Your task to perform on an android device: change timer sound Image 0: 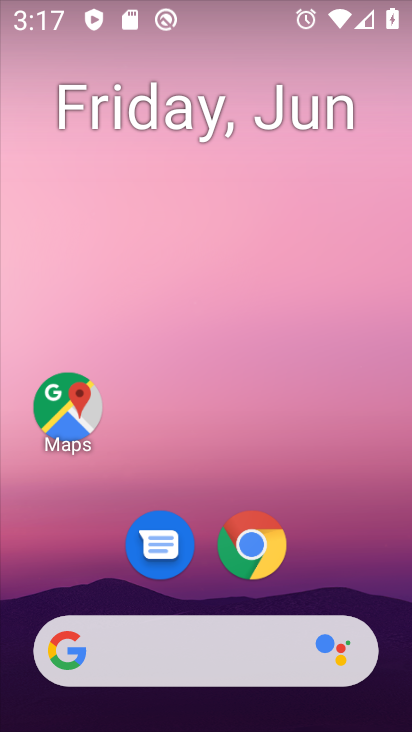
Step 0: drag from (313, 484) to (312, 2)
Your task to perform on an android device: change timer sound Image 1: 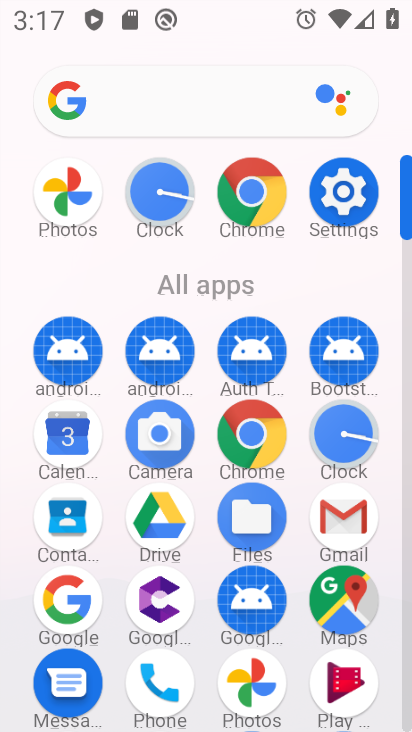
Step 1: click (341, 452)
Your task to perform on an android device: change timer sound Image 2: 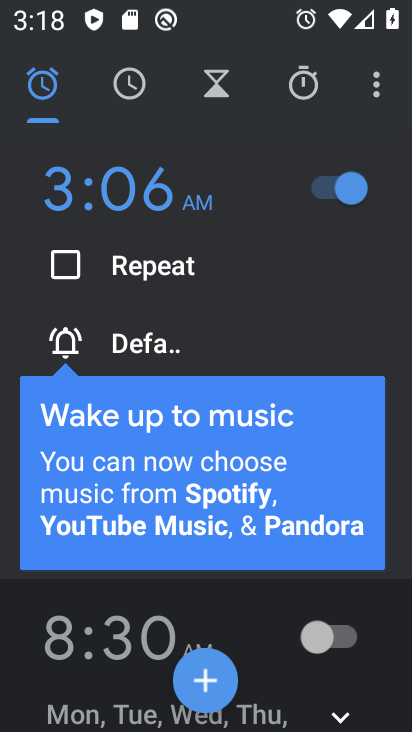
Step 2: click (364, 84)
Your task to perform on an android device: change timer sound Image 3: 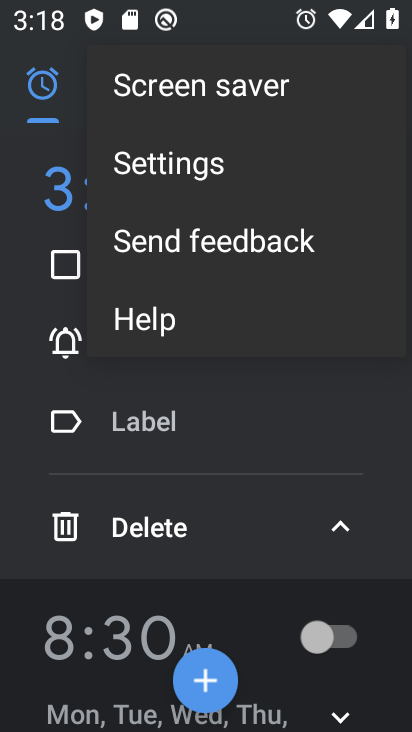
Step 3: click (168, 165)
Your task to perform on an android device: change timer sound Image 4: 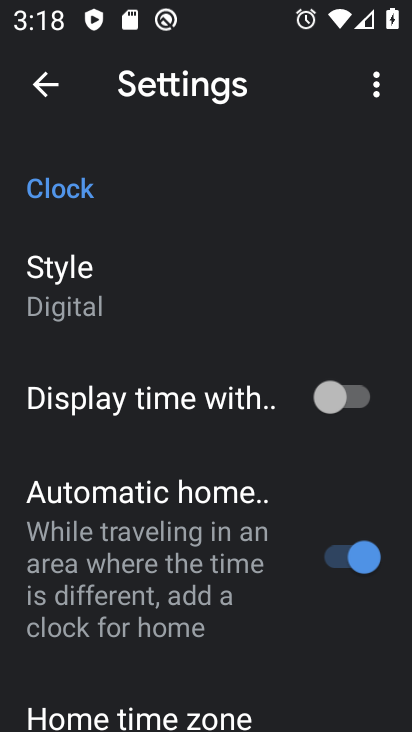
Step 4: drag from (181, 648) to (198, 275)
Your task to perform on an android device: change timer sound Image 5: 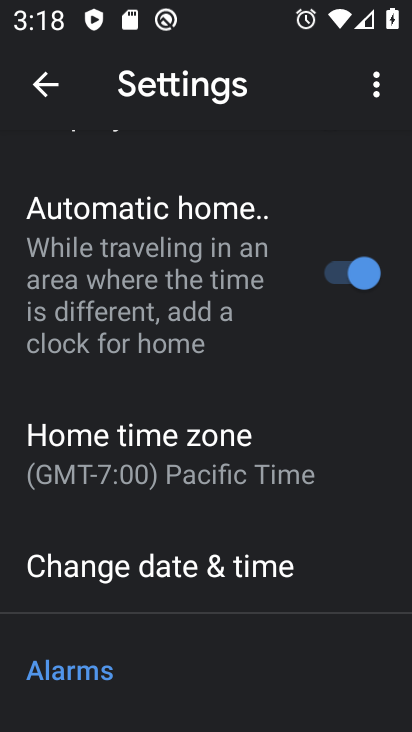
Step 5: drag from (149, 643) to (180, 165)
Your task to perform on an android device: change timer sound Image 6: 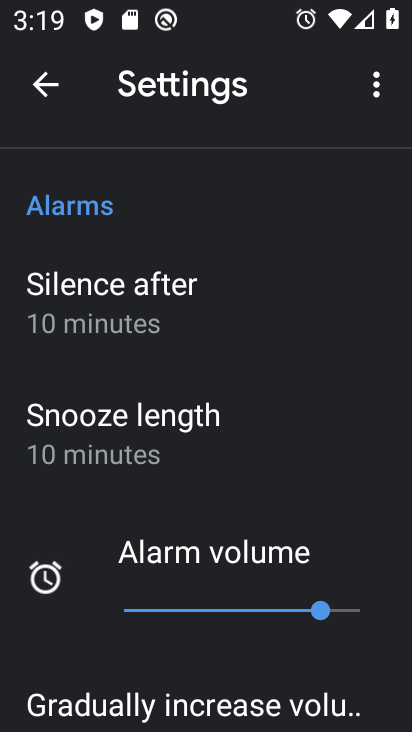
Step 6: drag from (207, 689) to (312, 199)
Your task to perform on an android device: change timer sound Image 7: 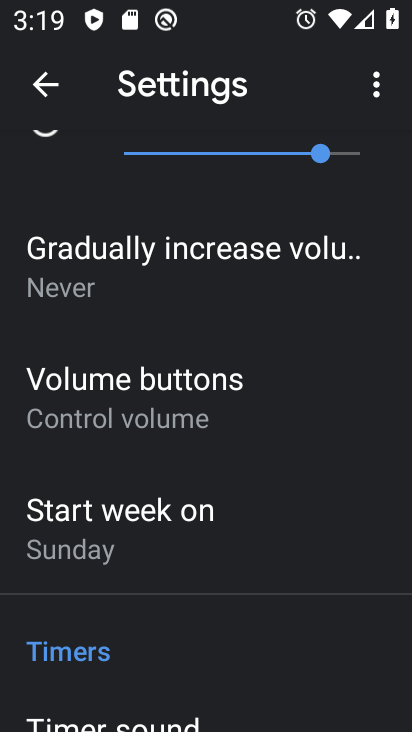
Step 7: drag from (150, 594) to (174, 190)
Your task to perform on an android device: change timer sound Image 8: 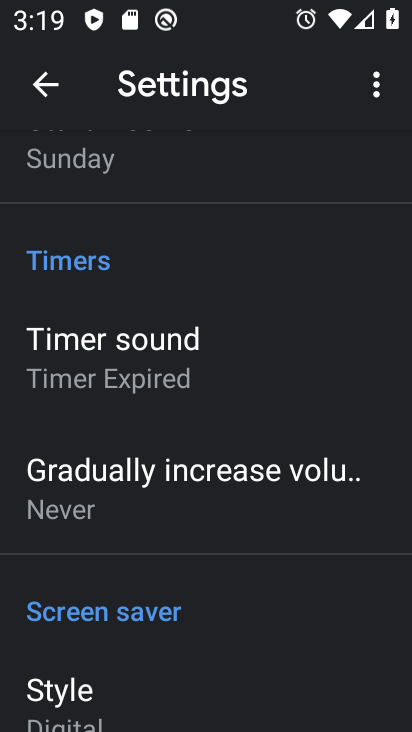
Step 8: click (118, 326)
Your task to perform on an android device: change timer sound Image 9: 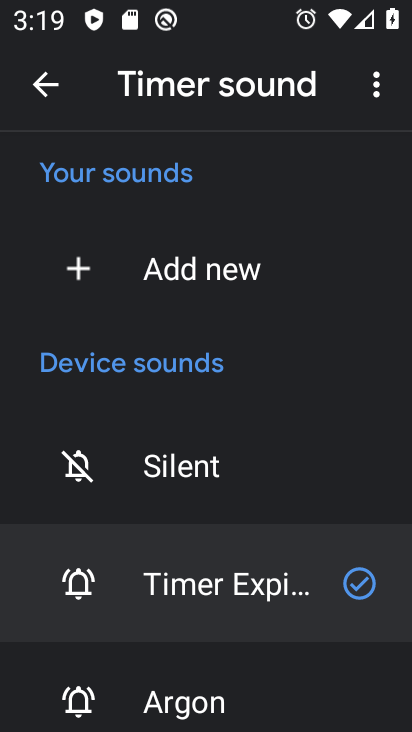
Step 9: click (230, 693)
Your task to perform on an android device: change timer sound Image 10: 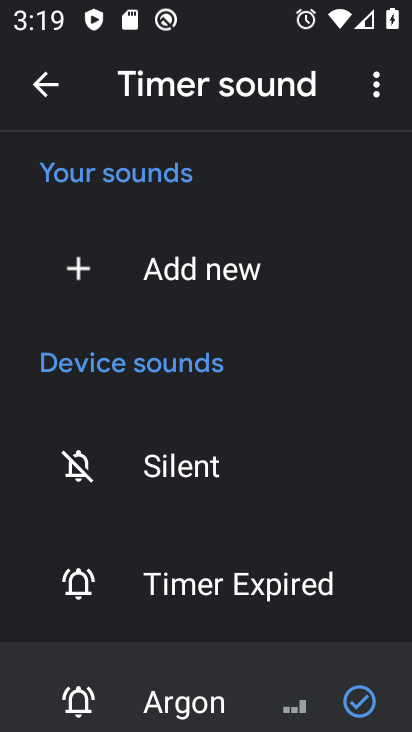
Step 10: task complete